Your task to perform on an android device: Open the Play Movies app and select the watchlist tab. Image 0: 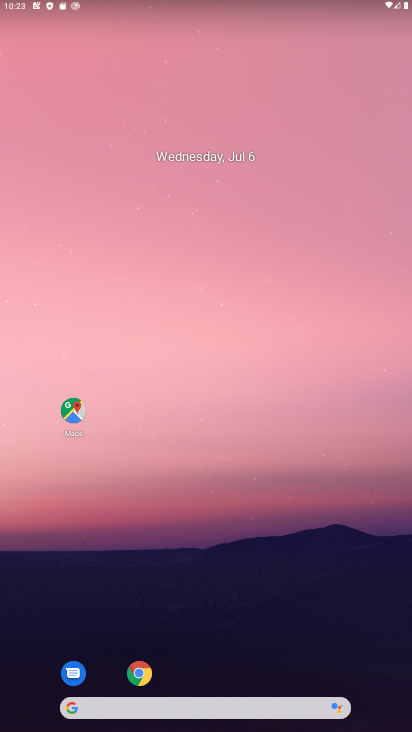
Step 0: drag from (197, 730) to (184, 610)
Your task to perform on an android device: Open the Play Movies app and select the watchlist tab. Image 1: 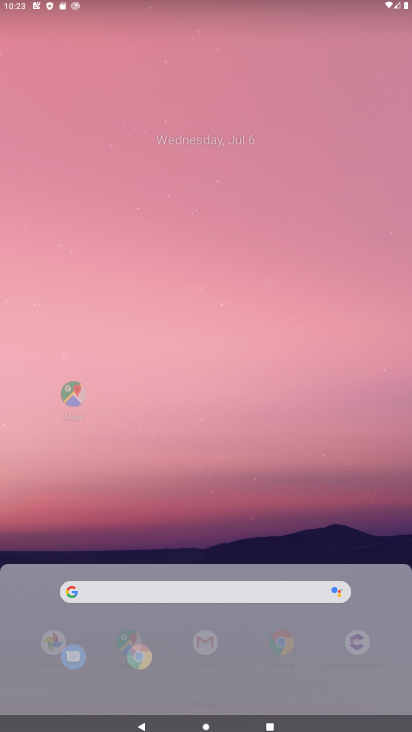
Step 1: drag from (185, 166) to (185, 27)
Your task to perform on an android device: Open the Play Movies app and select the watchlist tab. Image 2: 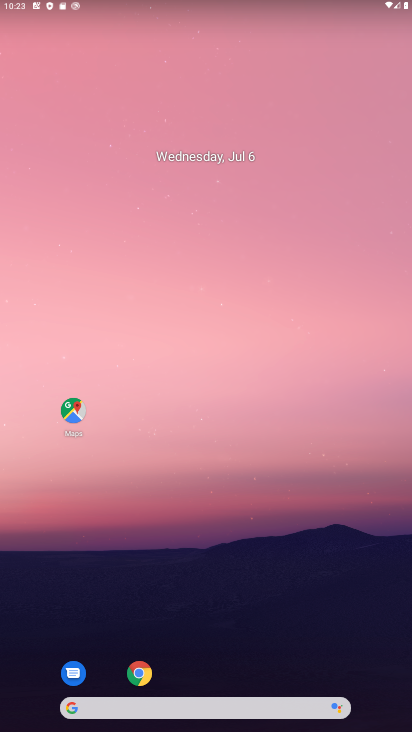
Step 2: click (258, 726)
Your task to perform on an android device: Open the Play Movies app and select the watchlist tab. Image 3: 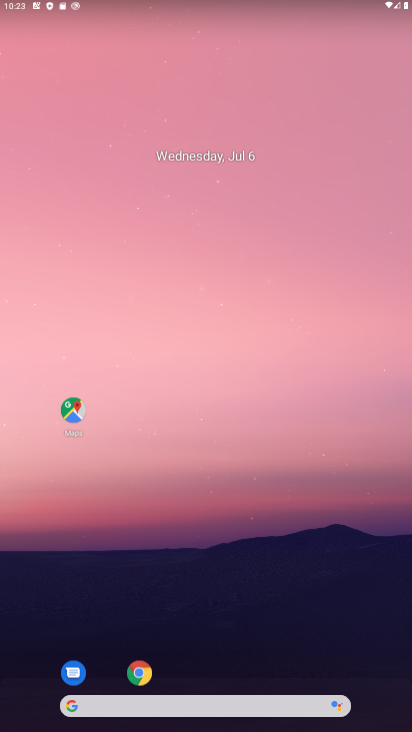
Step 3: click (232, 106)
Your task to perform on an android device: Open the Play Movies app and select the watchlist tab. Image 4: 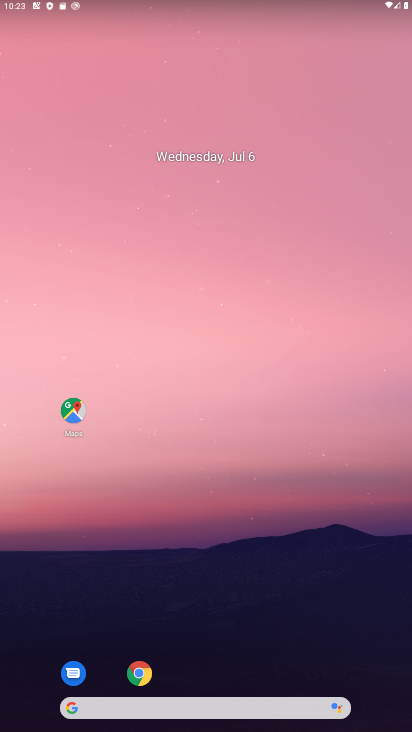
Step 4: drag from (226, 728) to (220, 386)
Your task to perform on an android device: Open the Play Movies app and select the watchlist tab. Image 5: 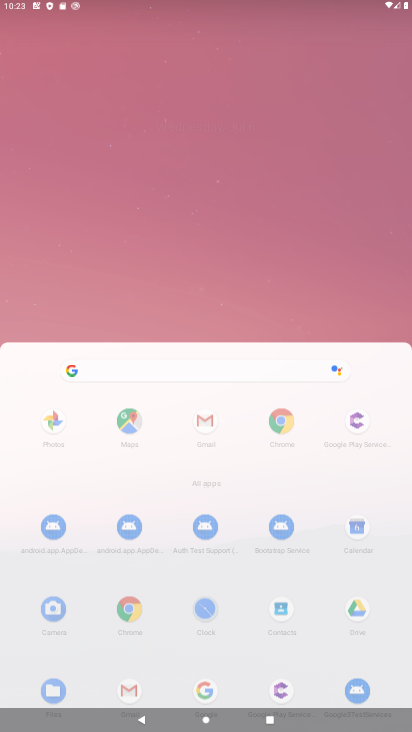
Step 5: click (214, 89)
Your task to perform on an android device: Open the Play Movies app and select the watchlist tab. Image 6: 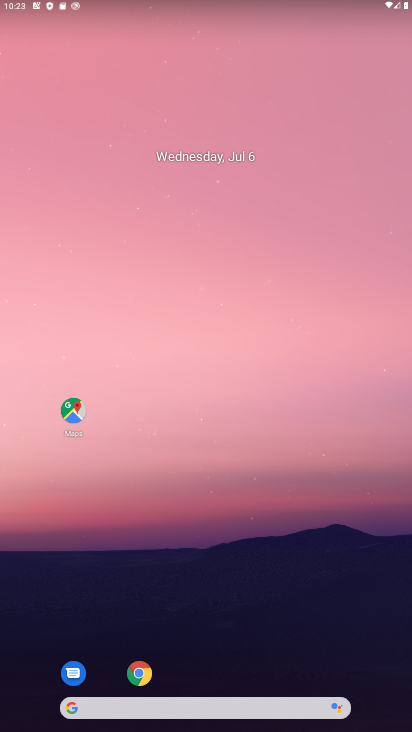
Step 6: click (227, 728)
Your task to perform on an android device: Open the Play Movies app and select the watchlist tab. Image 7: 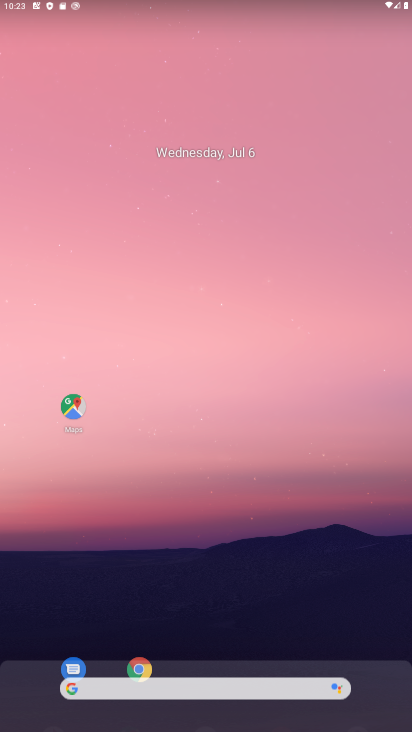
Step 7: click (225, 75)
Your task to perform on an android device: Open the Play Movies app and select the watchlist tab. Image 8: 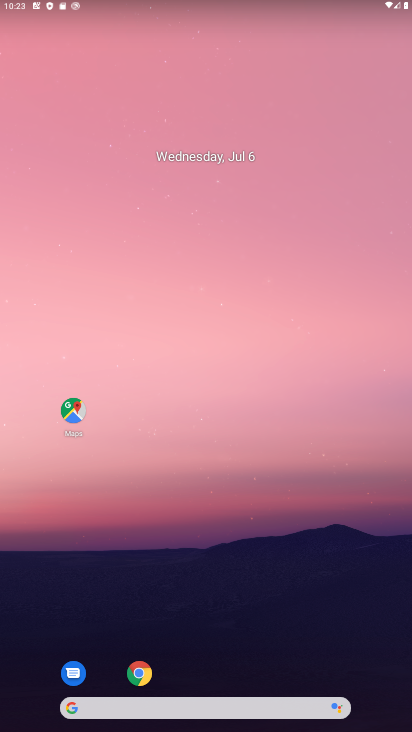
Step 8: drag from (222, 707) to (222, 565)
Your task to perform on an android device: Open the Play Movies app and select the watchlist tab. Image 9: 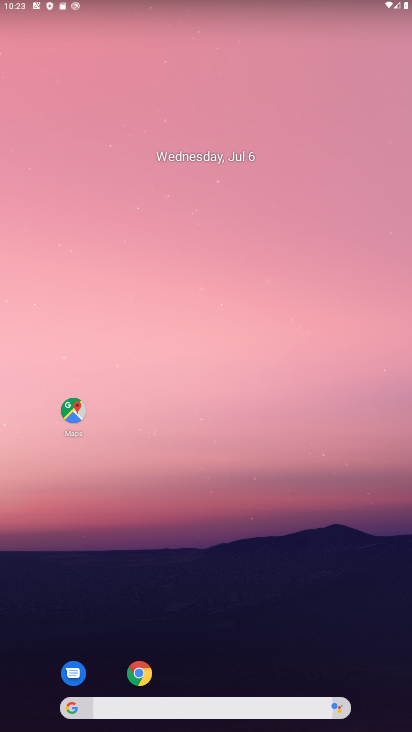
Step 9: drag from (217, 113) to (213, 51)
Your task to perform on an android device: Open the Play Movies app and select the watchlist tab. Image 10: 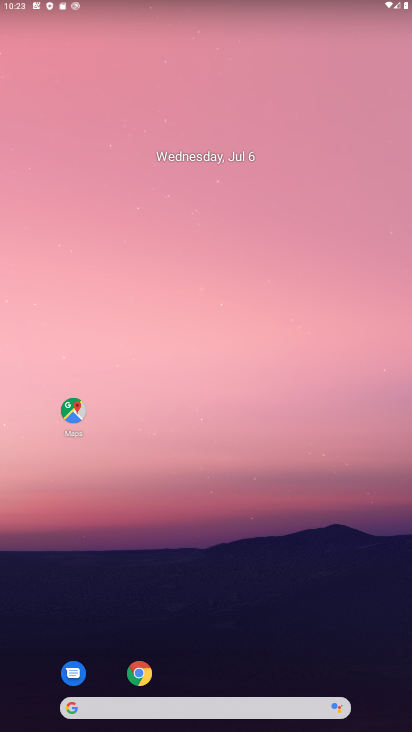
Step 10: drag from (322, 724) to (302, 42)
Your task to perform on an android device: Open the Play Movies app and select the watchlist tab. Image 11: 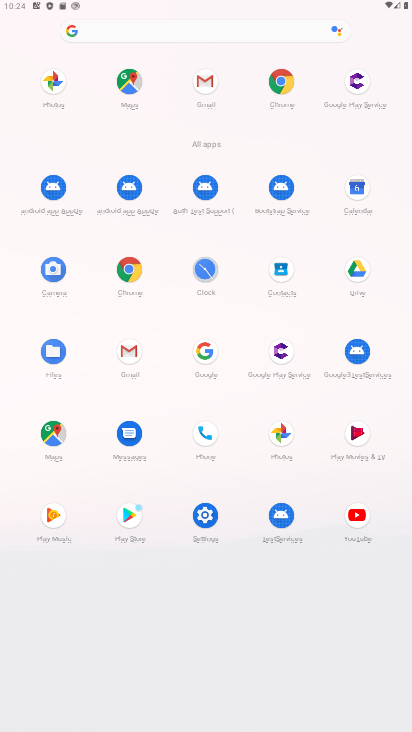
Step 11: click (355, 434)
Your task to perform on an android device: Open the Play Movies app and select the watchlist tab. Image 12: 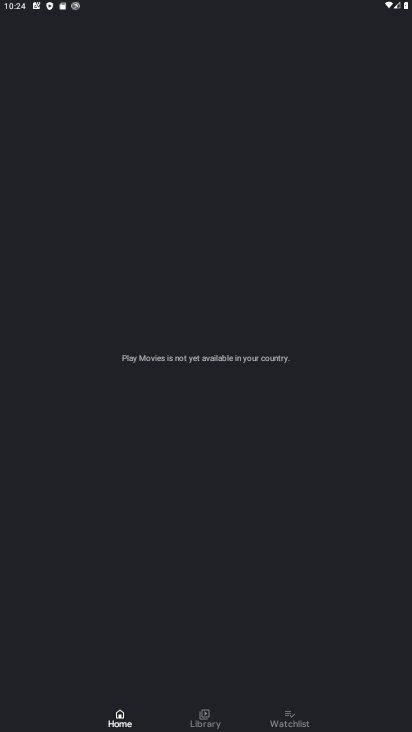
Step 12: click (285, 708)
Your task to perform on an android device: Open the Play Movies app and select the watchlist tab. Image 13: 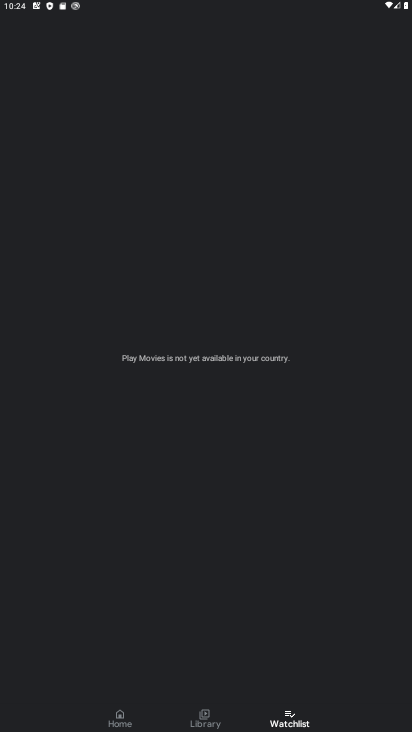
Step 13: task complete